Your task to perform on an android device: open a bookmark in the chrome app Image 0: 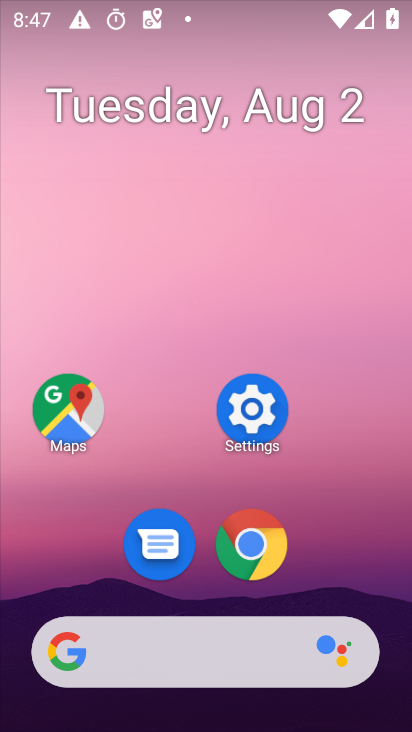
Step 0: click (256, 547)
Your task to perform on an android device: open a bookmark in the chrome app Image 1: 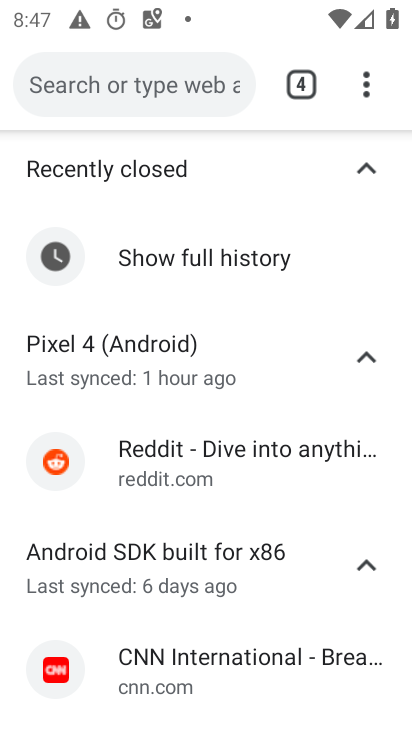
Step 1: task complete